Your task to perform on an android device: turn pop-ups off in chrome Image 0: 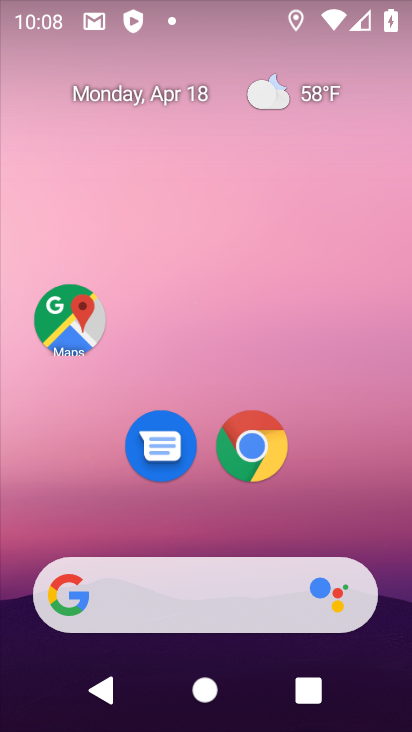
Step 0: drag from (371, 65) to (382, 168)
Your task to perform on an android device: turn pop-ups off in chrome Image 1: 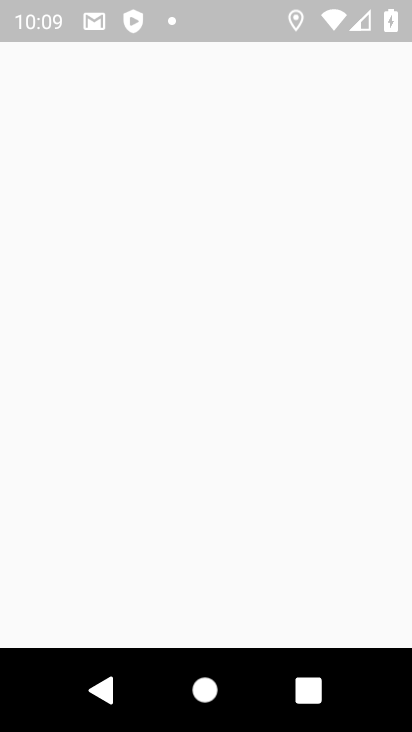
Step 1: press home button
Your task to perform on an android device: turn pop-ups off in chrome Image 2: 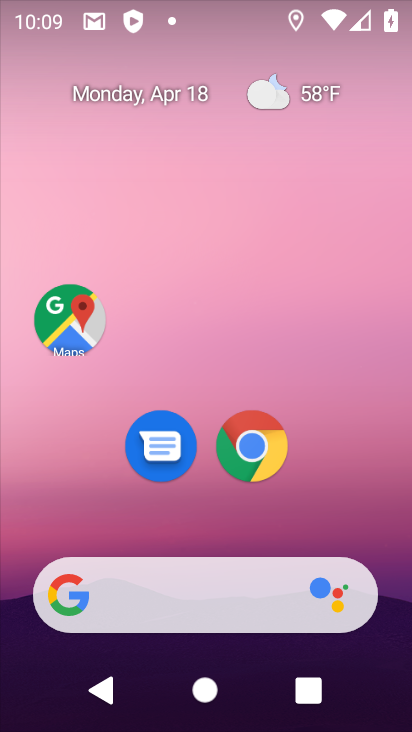
Step 2: drag from (355, 503) to (332, 108)
Your task to perform on an android device: turn pop-ups off in chrome Image 3: 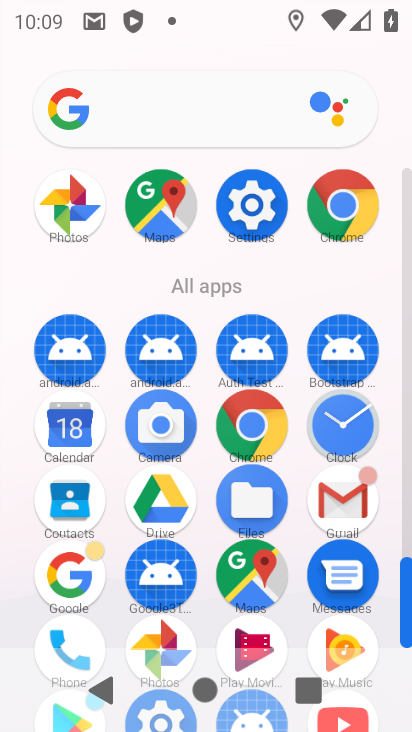
Step 3: click (262, 429)
Your task to perform on an android device: turn pop-ups off in chrome Image 4: 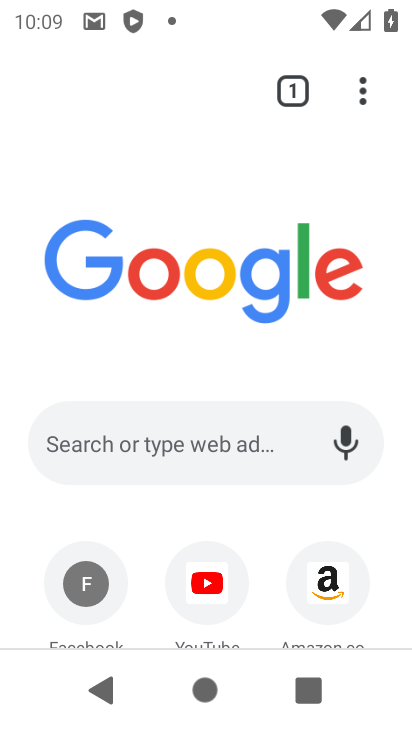
Step 4: click (362, 97)
Your task to perform on an android device: turn pop-ups off in chrome Image 5: 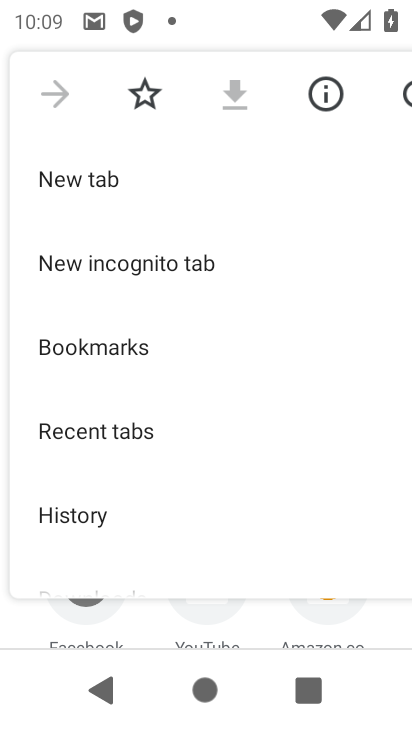
Step 5: drag from (305, 491) to (304, 261)
Your task to perform on an android device: turn pop-ups off in chrome Image 6: 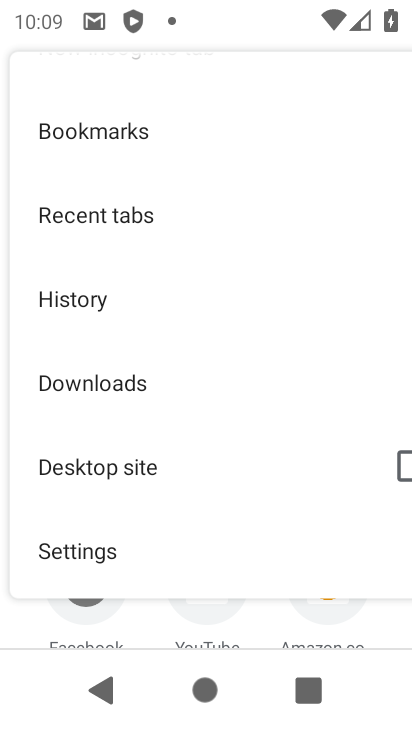
Step 6: drag from (300, 490) to (310, 282)
Your task to perform on an android device: turn pop-ups off in chrome Image 7: 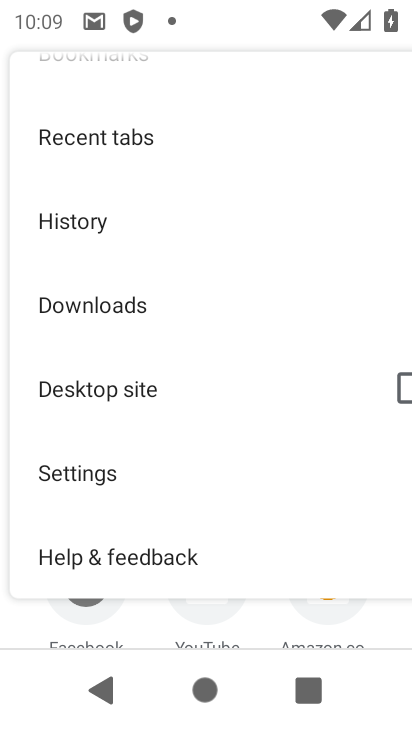
Step 7: click (98, 471)
Your task to perform on an android device: turn pop-ups off in chrome Image 8: 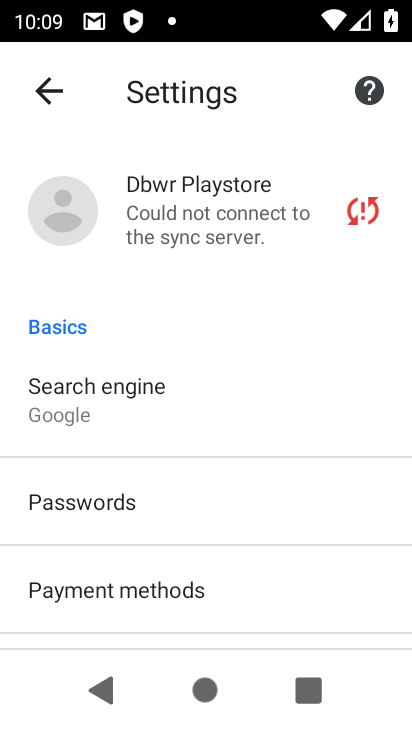
Step 8: drag from (274, 549) to (282, 358)
Your task to perform on an android device: turn pop-ups off in chrome Image 9: 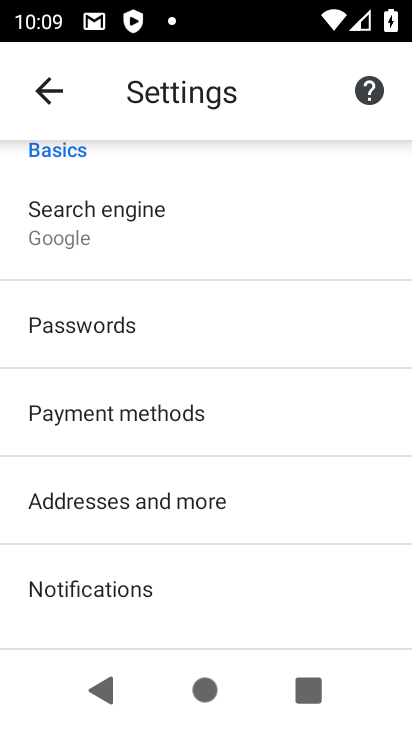
Step 9: drag from (286, 566) to (302, 356)
Your task to perform on an android device: turn pop-ups off in chrome Image 10: 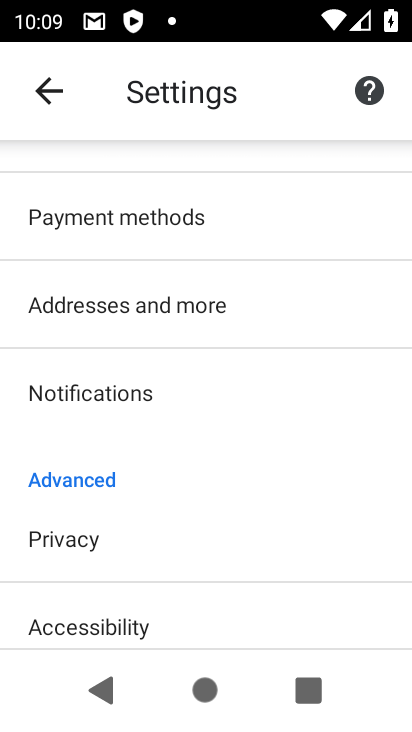
Step 10: drag from (309, 590) to (334, 353)
Your task to perform on an android device: turn pop-ups off in chrome Image 11: 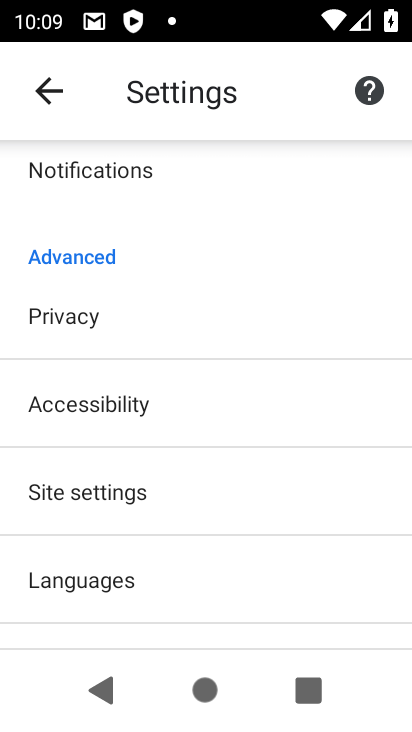
Step 11: drag from (280, 562) to (309, 290)
Your task to perform on an android device: turn pop-ups off in chrome Image 12: 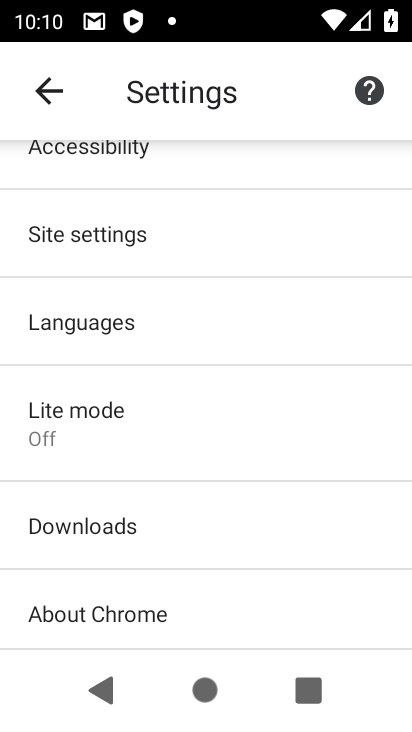
Step 12: click (244, 228)
Your task to perform on an android device: turn pop-ups off in chrome Image 13: 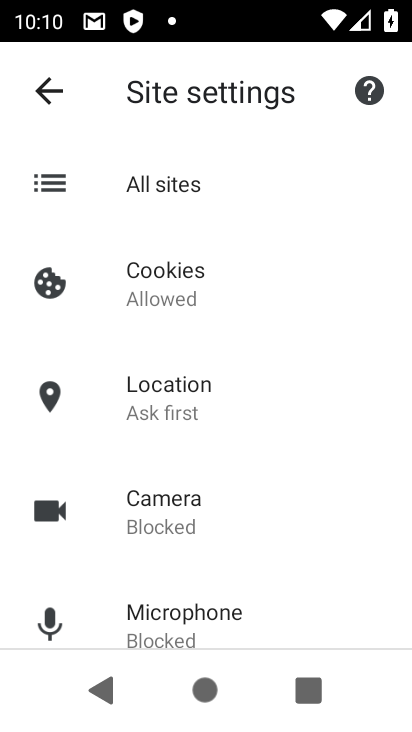
Step 13: drag from (330, 549) to (341, 380)
Your task to perform on an android device: turn pop-ups off in chrome Image 14: 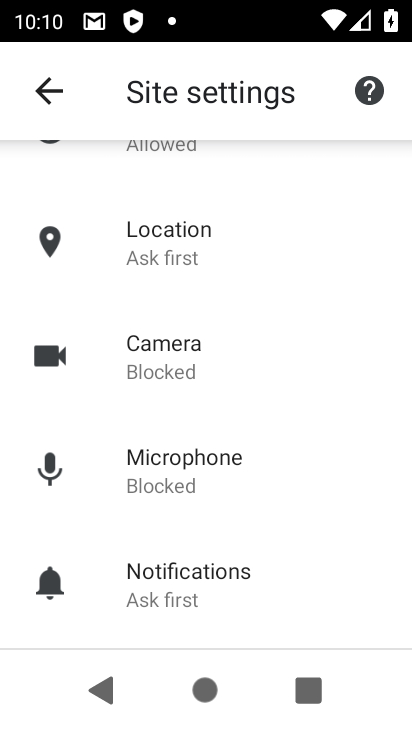
Step 14: drag from (350, 515) to (360, 346)
Your task to perform on an android device: turn pop-ups off in chrome Image 15: 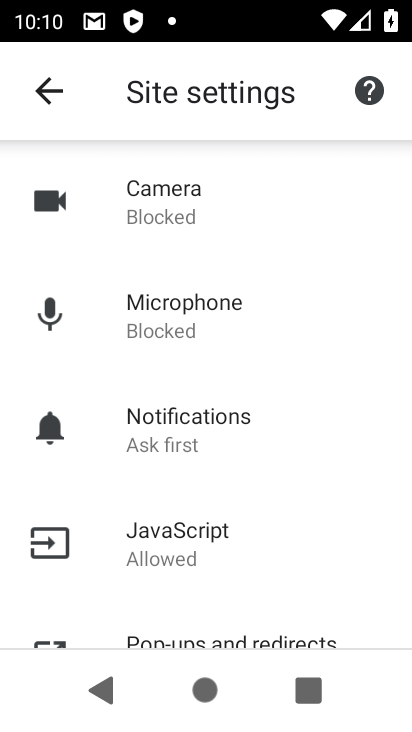
Step 15: drag from (350, 545) to (349, 341)
Your task to perform on an android device: turn pop-ups off in chrome Image 16: 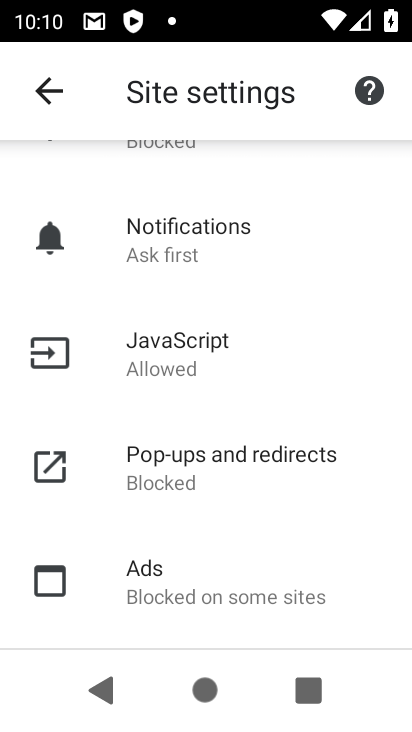
Step 16: drag from (361, 546) to (362, 398)
Your task to perform on an android device: turn pop-ups off in chrome Image 17: 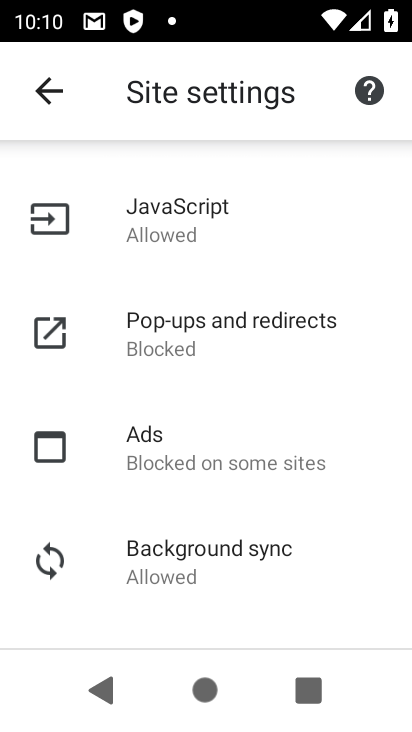
Step 17: click (205, 329)
Your task to perform on an android device: turn pop-ups off in chrome Image 18: 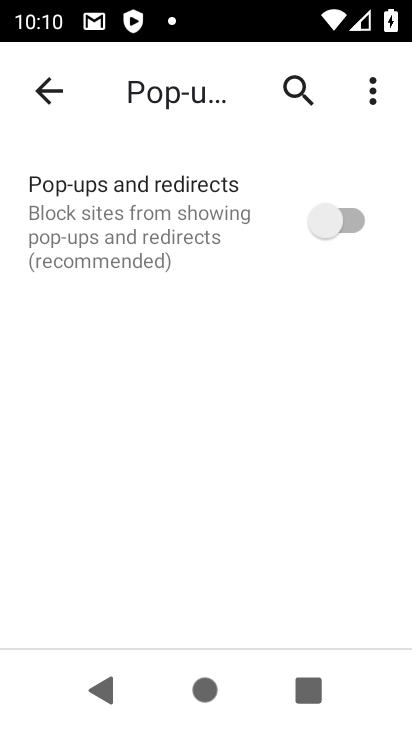
Step 18: task complete